Your task to perform on an android device: read, delete, or share a saved page in the chrome app Image 0: 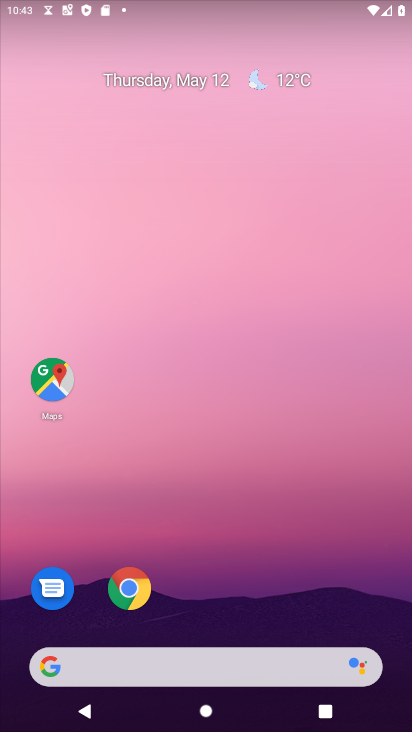
Step 0: click (127, 587)
Your task to perform on an android device: read, delete, or share a saved page in the chrome app Image 1: 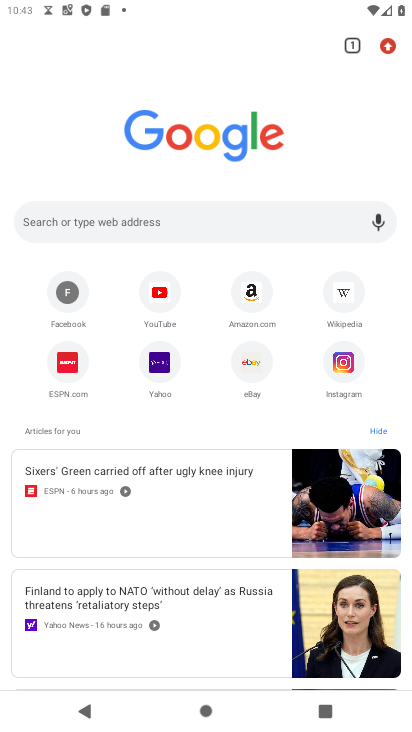
Step 1: click (388, 45)
Your task to perform on an android device: read, delete, or share a saved page in the chrome app Image 2: 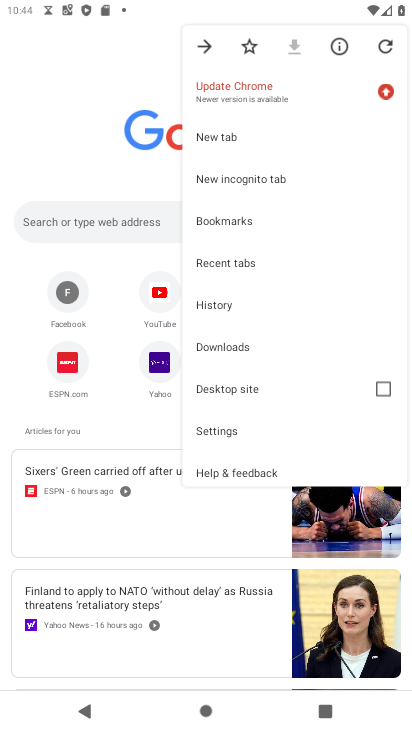
Step 2: click (238, 346)
Your task to perform on an android device: read, delete, or share a saved page in the chrome app Image 3: 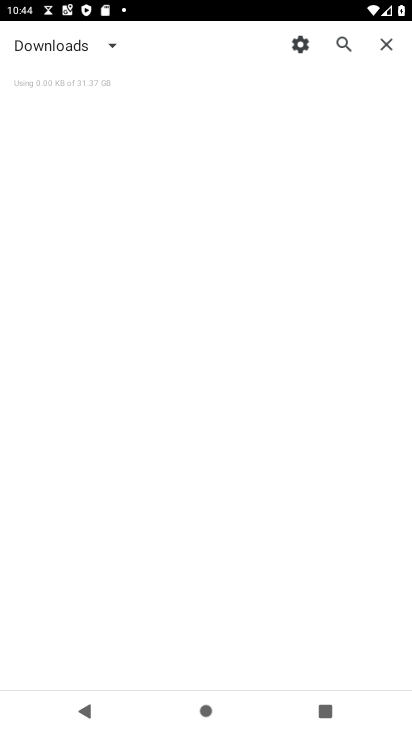
Step 3: click (109, 44)
Your task to perform on an android device: read, delete, or share a saved page in the chrome app Image 4: 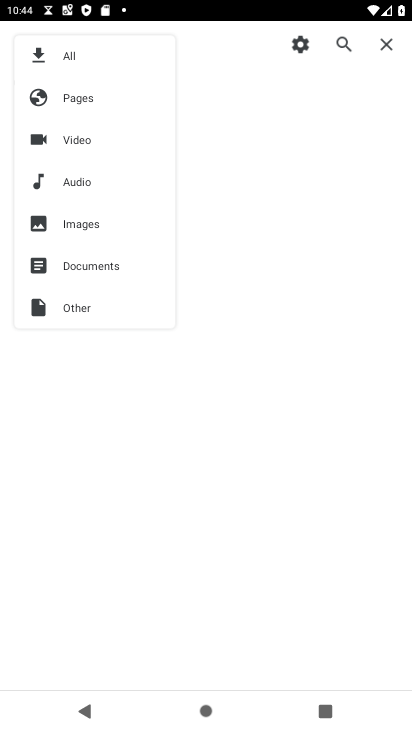
Step 4: click (103, 104)
Your task to perform on an android device: read, delete, or share a saved page in the chrome app Image 5: 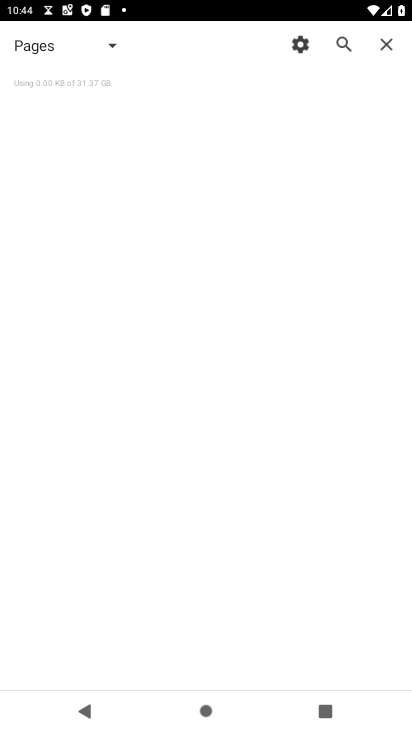
Step 5: task complete